Your task to perform on an android device: Open Google Chrome and open the bookmarks view Image 0: 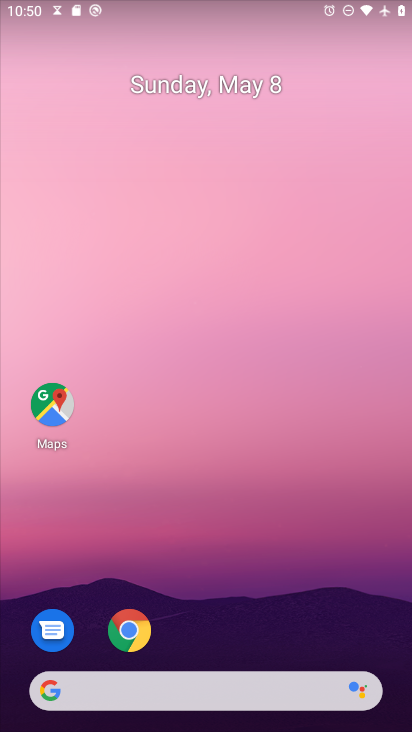
Step 0: drag from (218, 683) to (328, 326)
Your task to perform on an android device: Open Google Chrome and open the bookmarks view Image 1: 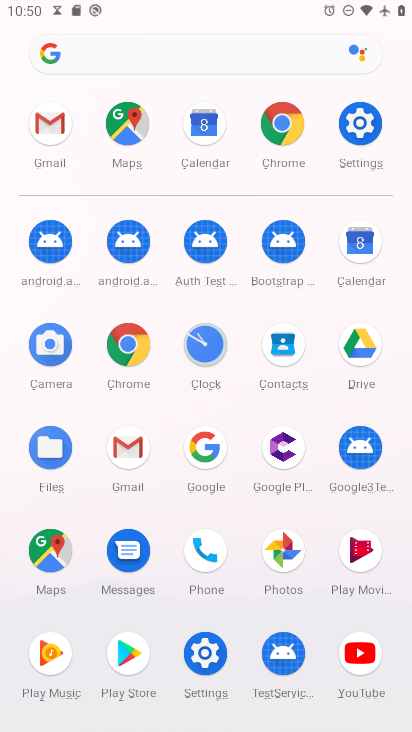
Step 1: click (292, 136)
Your task to perform on an android device: Open Google Chrome and open the bookmarks view Image 2: 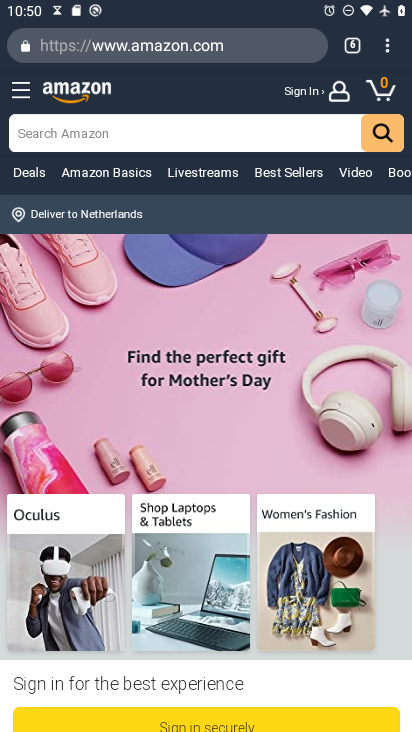
Step 2: task complete